Your task to perform on an android device: change the upload size in google photos Image 0: 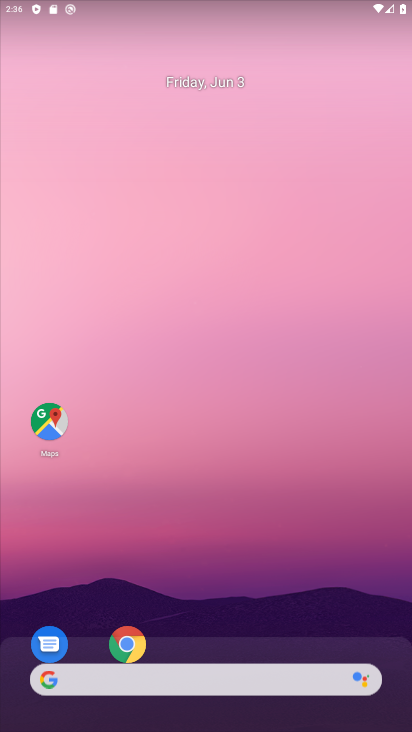
Step 0: drag from (304, 651) to (175, 148)
Your task to perform on an android device: change the upload size in google photos Image 1: 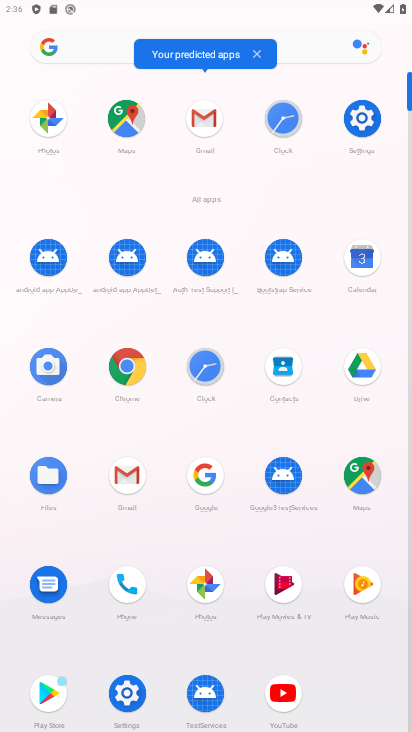
Step 1: click (192, 589)
Your task to perform on an android device: change the upload size in google photos Image 2: 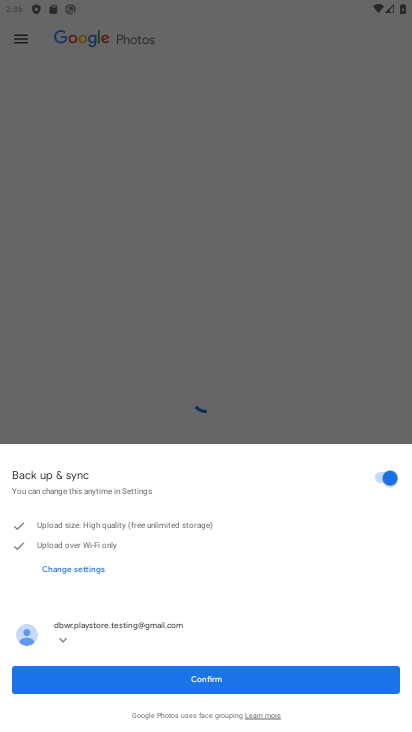
Step 2: click (186, 669)
Your task to perform on an android device: change the upload size in google photos Image 3: 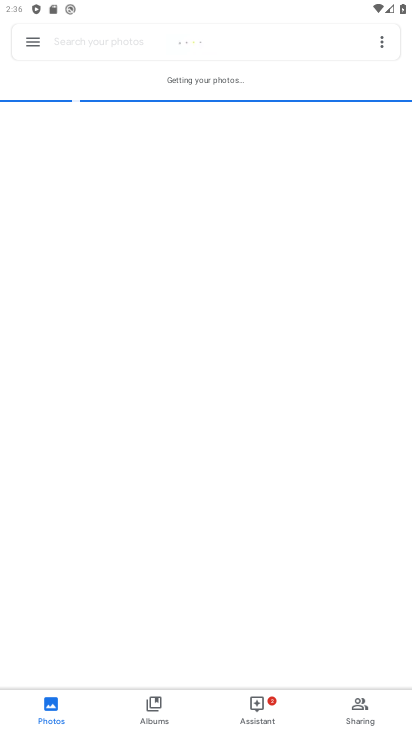
Step 3: click (30, 40)
Your task to perform on an android device: change the upload size in google photos Image 4: 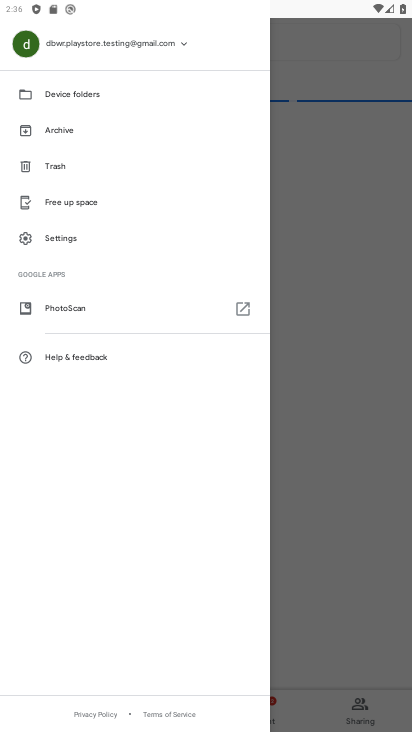
Step 4: click (57, 234)
Your task to perform on an android device: change the upload size in google photos Image 5: 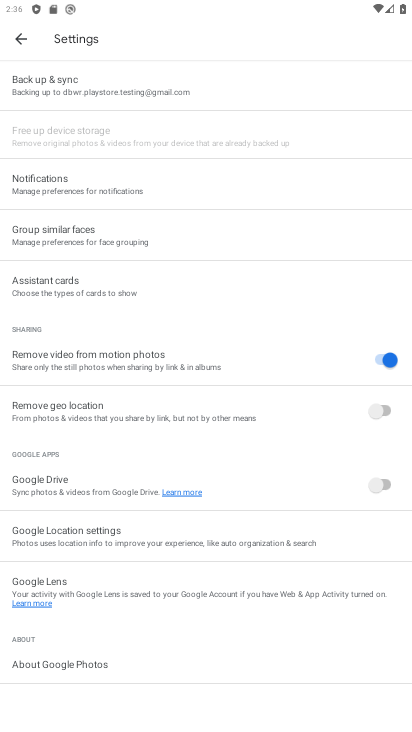
Step 5: click (45, 76)
Your task to perform on an android device: change the upload size in google photos Image 6: 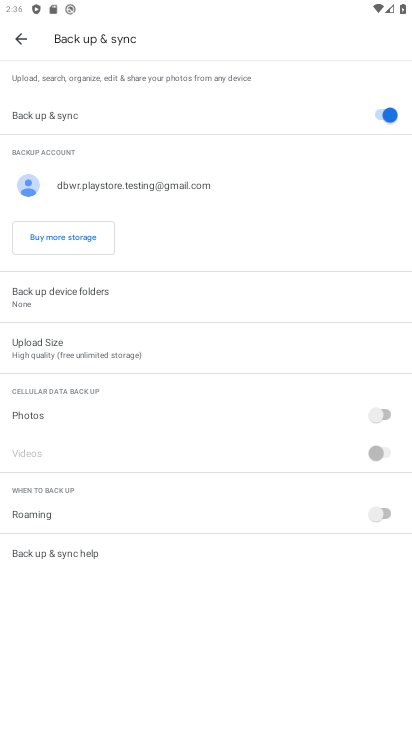
Step 6: click (35, 345)
Your task to perform on an android device: change the upload size in google photos Image 7: 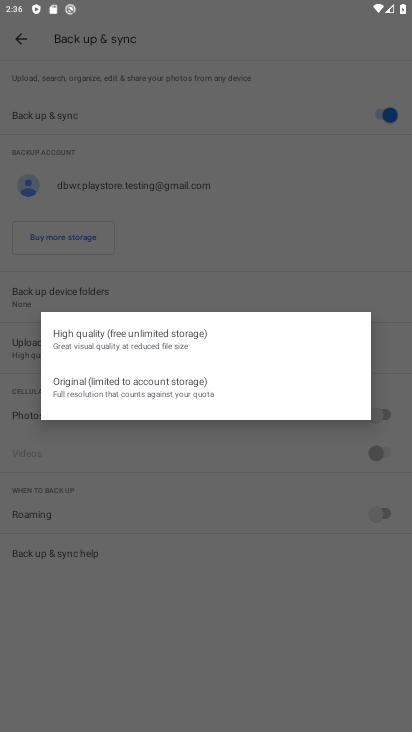
Step 7: click (108, 389)
Your task to perform on an android device: change the upload size in google photos Image 8: 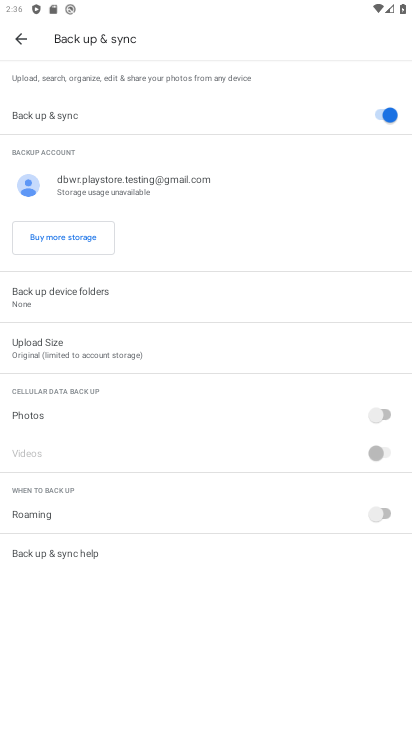
Step 8: task complete